Your task to perform on an android device: Open notification settings Image 0: 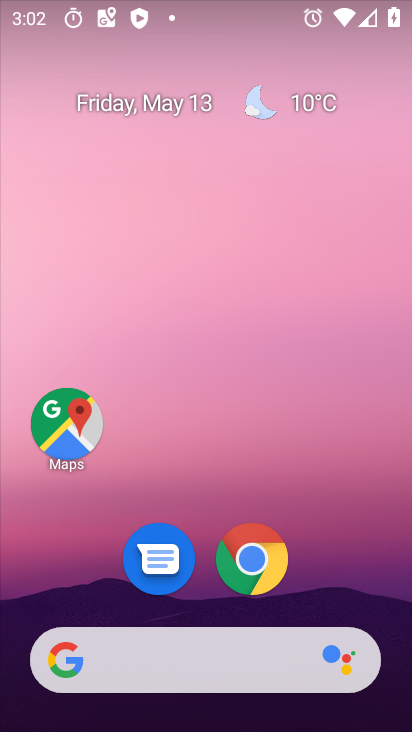
Step 0: drag from (193, 599) to (191, 232)
Your task to perform on an android device: Open notification settings Image 1: 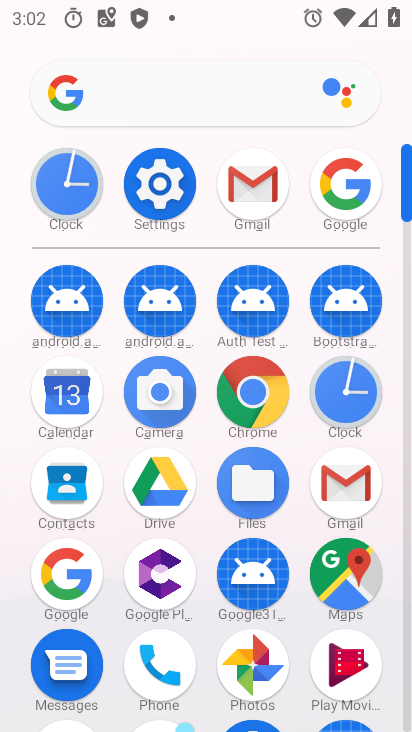
Step 1: click (168, 191)
Your task to perform on an android device: Open notification settings Image 2: 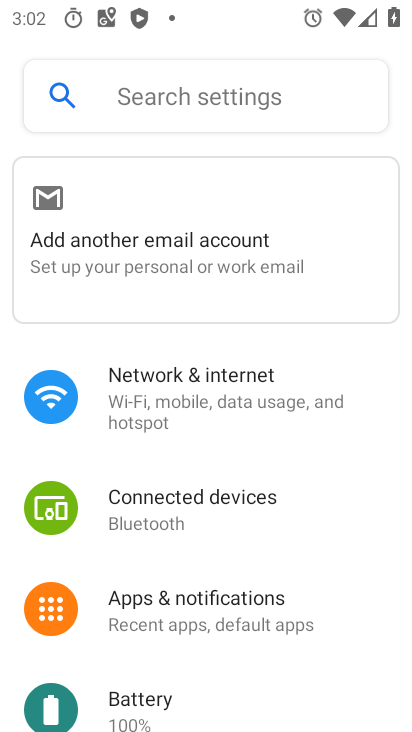
Step 2: click (248, 607)
Your task to perform on an android device: Open notification settings Image 3: 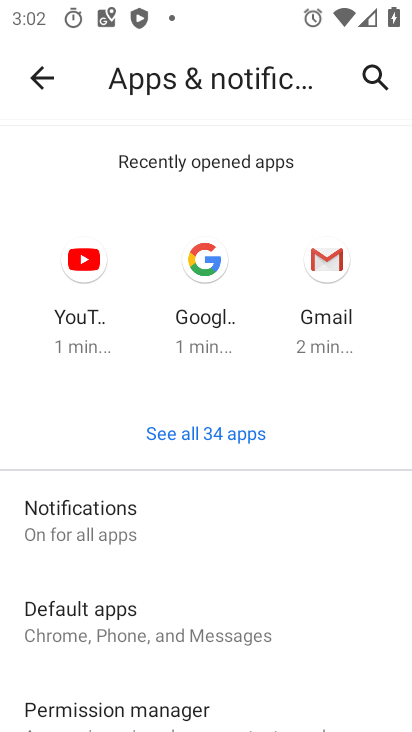
Step 3: click (119, 516)
Your task to perform on an android device: Open notification settings Image 4: 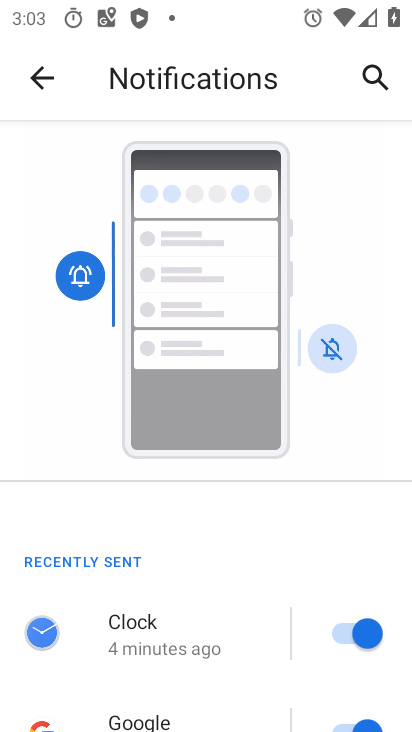
Step 4: task complete